Your task to perform on an android device: Check the weather Image 0: 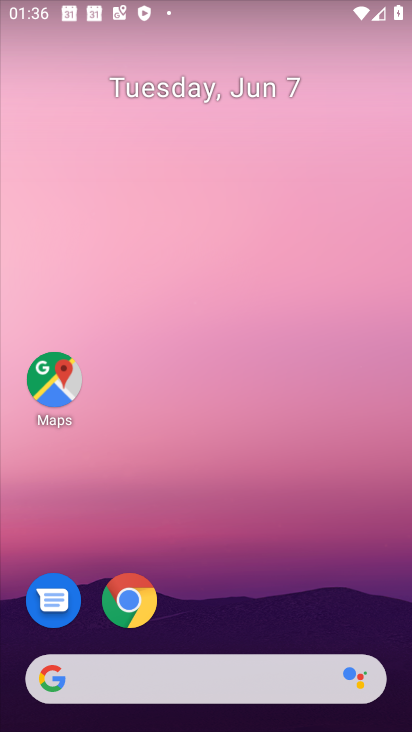
Step 0: drag from (235, 728) to (212, 185)
Your task to perform on an android device: Check the weather Image 1: 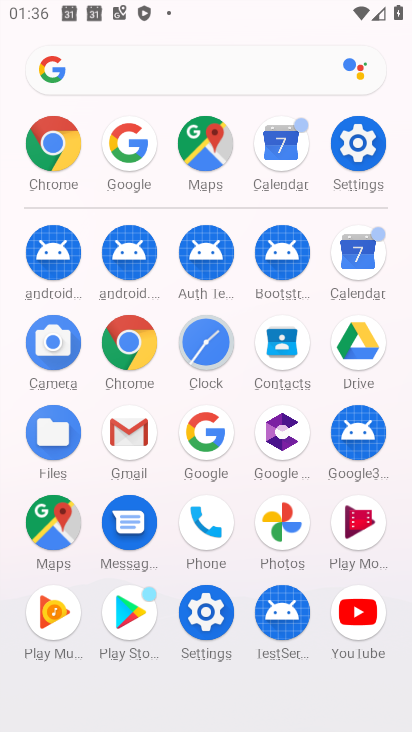
Step 1: click (207, 424)
Your task to perform on an android device: Check the weather Image 2: 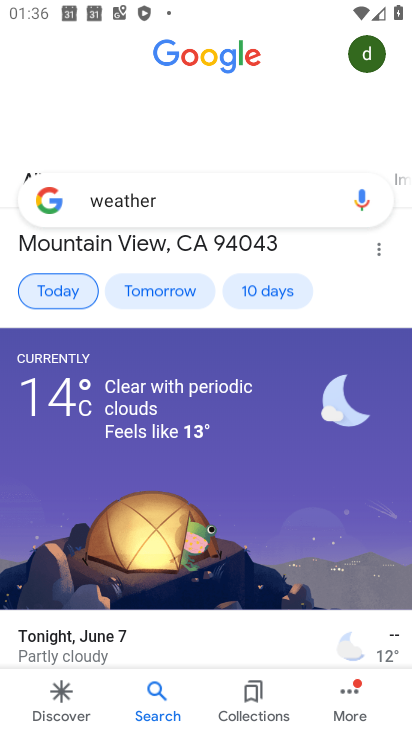
Step 2: click (56, 292)
Your task to perform on an android device: Check the weather Image 3: 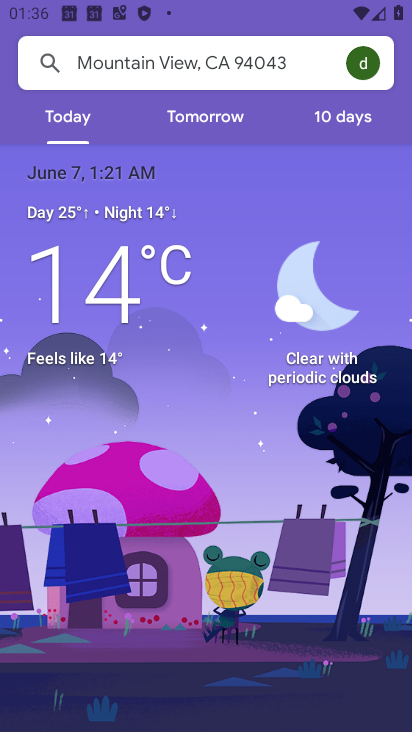
Step 3: task complete